Your task to perform on an android device: Open Maps and search for coffee Image 0: 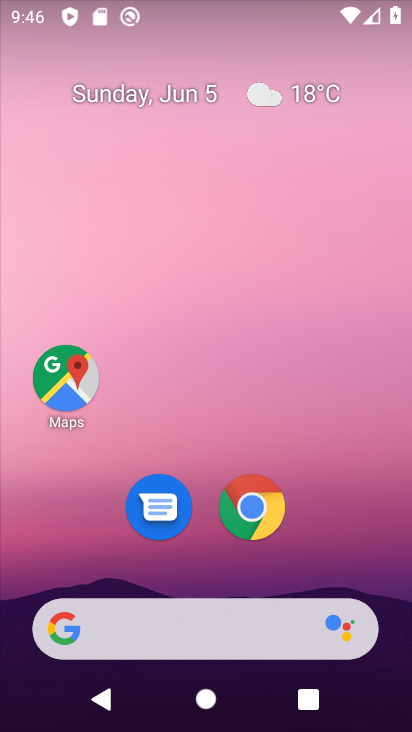
Step 0: click (86, 364)
Your task to perform on an android device: Open Maps and search for coffee Image 1: 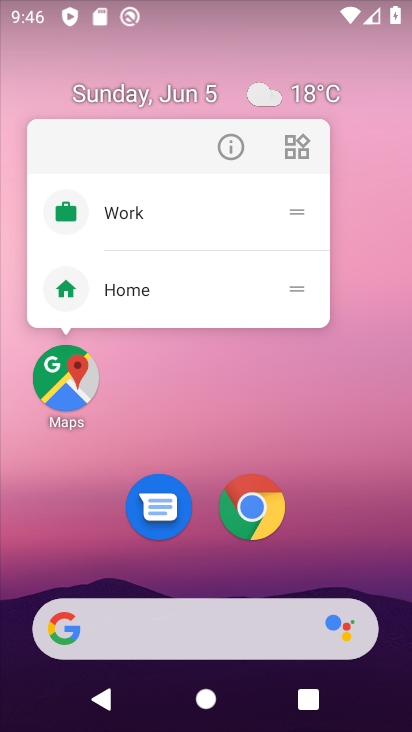
Step 1: click (76, 370)
Your task to perform on an android device: Open Maps and search for coffee Image 2: 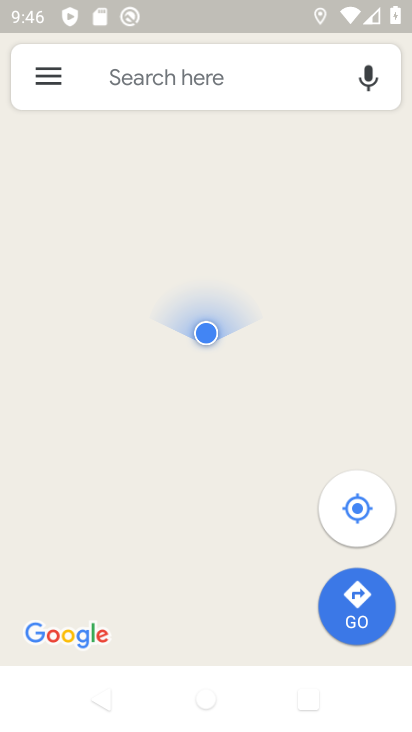
Step 2: click (148, 83)
Your task to perform on an android device: Open Maps and search for coffee Image 3: 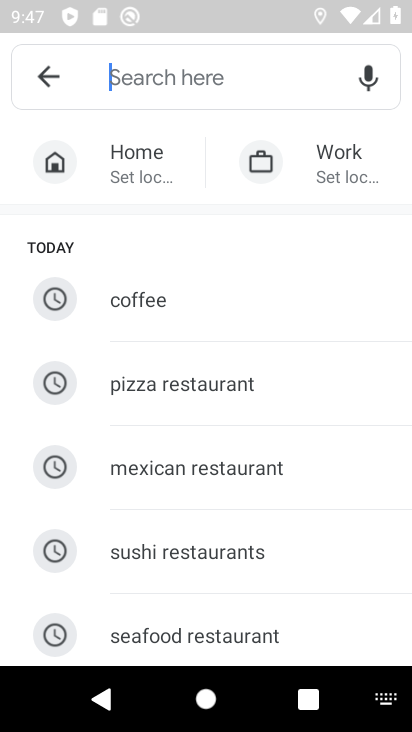
Step 3: type "coffee"
Your task to perform on an android device: Open Maps and search for coffee Image 4: 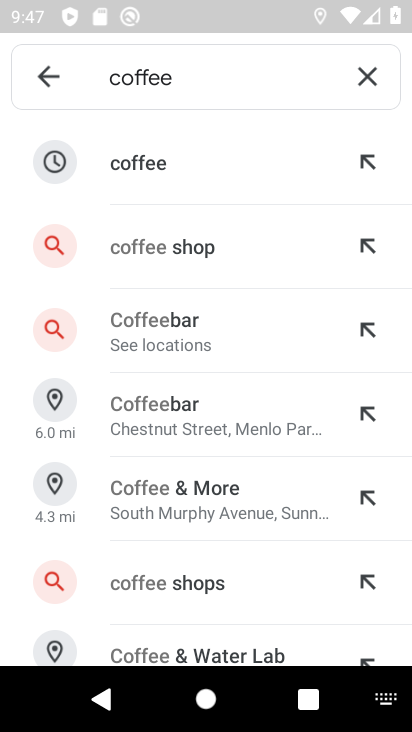
Step 4: click (161, 157)
Your task to perform on an android device: Open Maps and search for coffee Image 5: 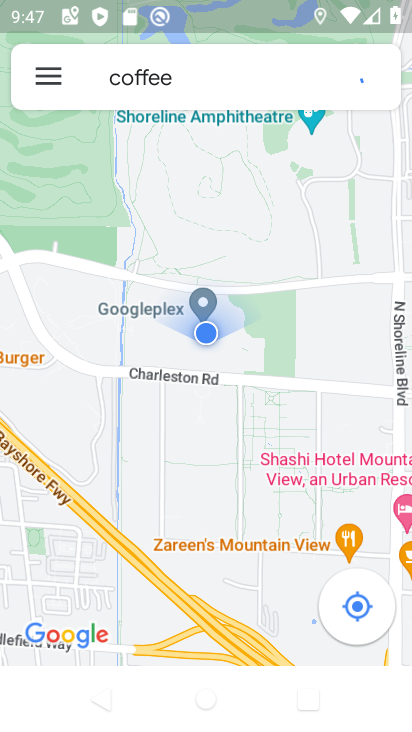
Step 5: task complete